Your task to perform on an android device: set an alarm Image 0: 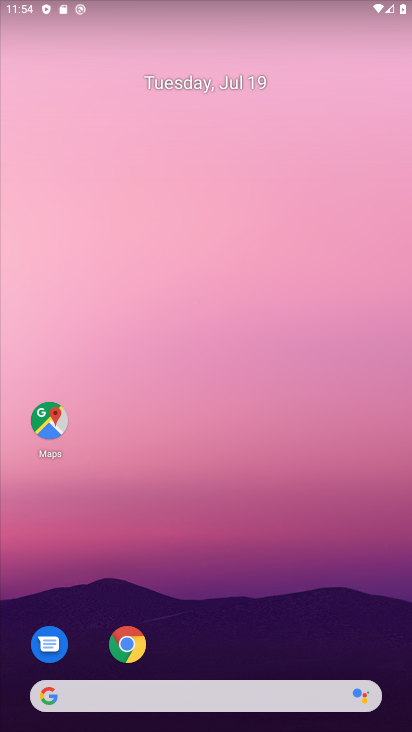
Step 0: drag from (216, 649) to (194, 118)
Your task to perform on an android device: set an alarm Image 1: 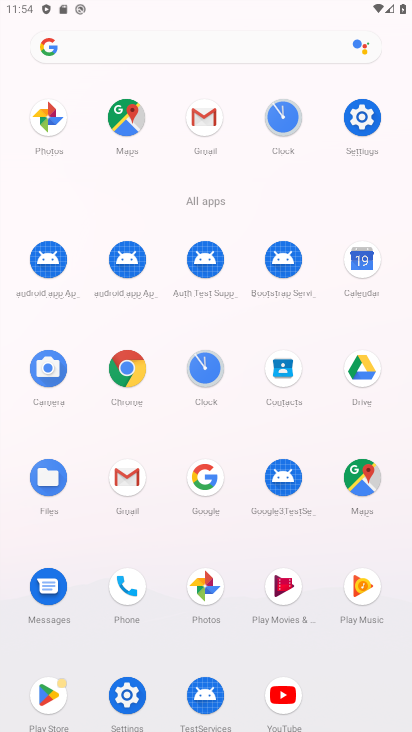
Step 1: click (365, 142)
Your task to perform on an android device: set an alarm Image 2: 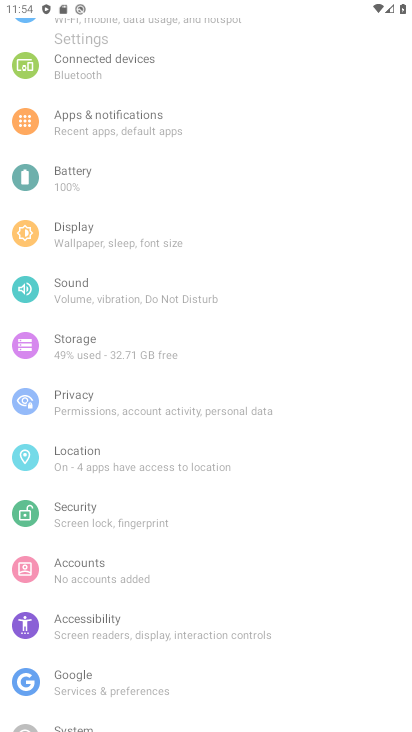
Step 2: click (292, 142)
Your task to perform on an android device: set an alarm Image 3: 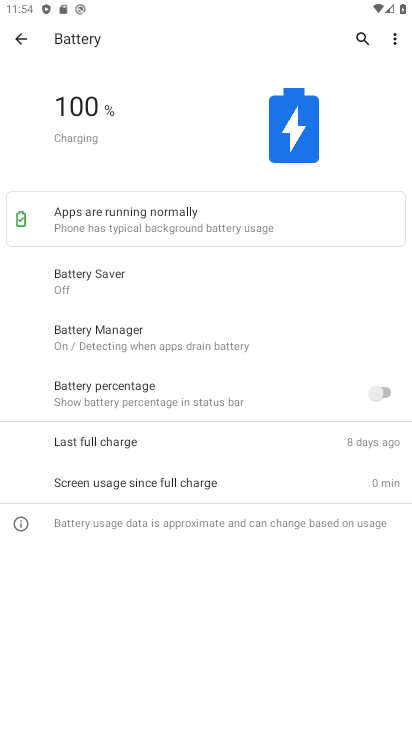
Step 3: press back button
Your task to perform on an android device: set an alarm Image 4: 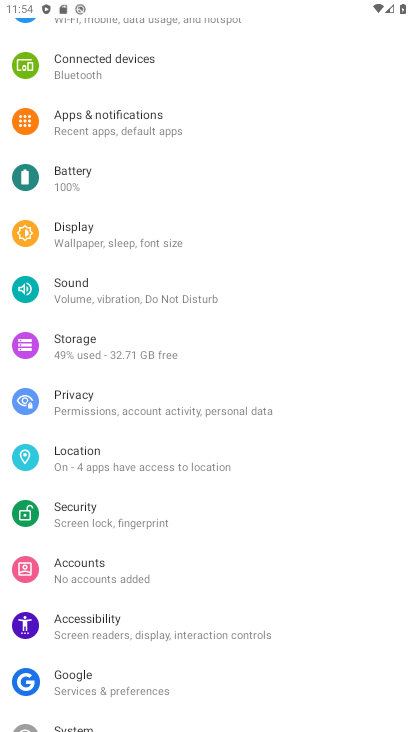
Step 4: press back button
Your task to perform on an android device: set an alarm Image 5: 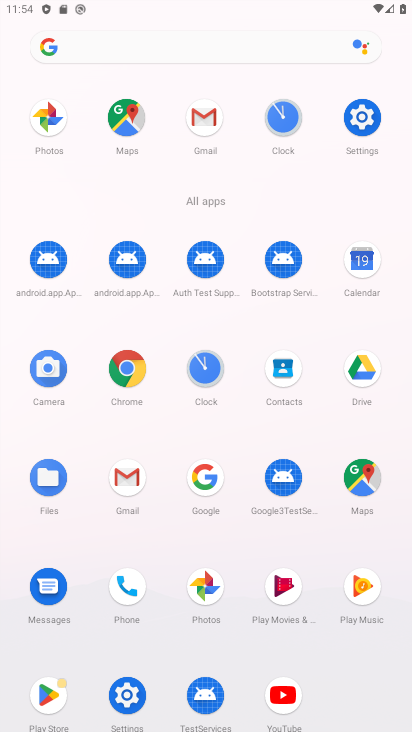
Step 5: click (294, 136)
Your task to perform on an android device: set an alarm Image 6: 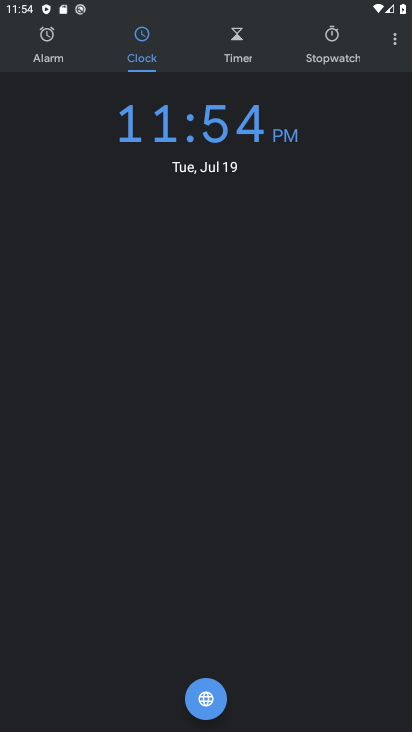
Step 6: click (37, 43)
Your task to perform on an android device: set an alarm Image 7: 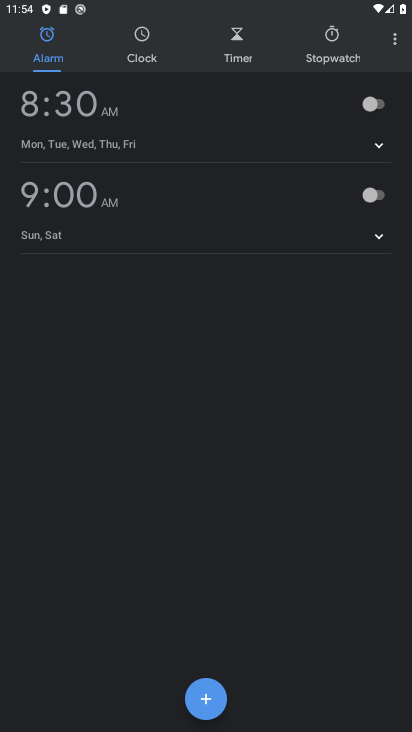
Step 7: click (362, 119)
Your task to perform on an android device: set an alarm Image 8: 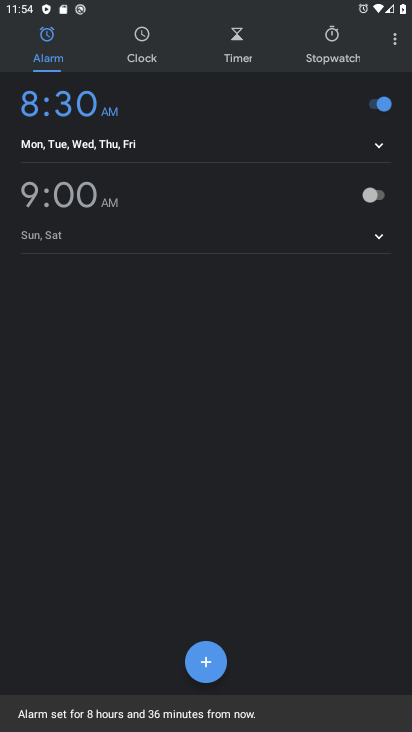
Step 8: task complete